Your task to perform on an android device: turn on priority inbox in the gmail app Image 0: 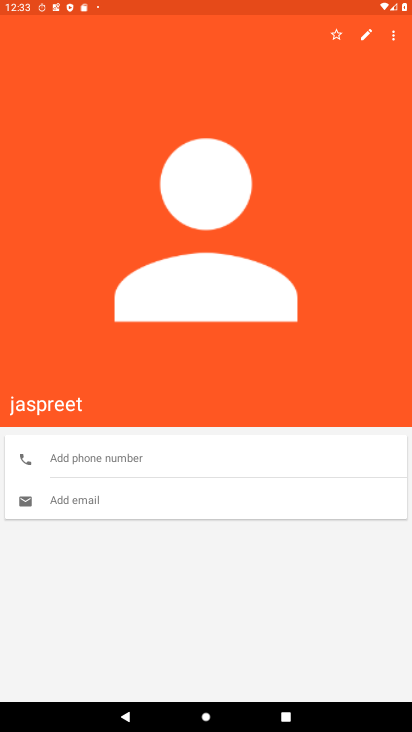
Step 0: press home button
Your task to perform on an android device: turn on priority inbox in the gmail app Image 1: 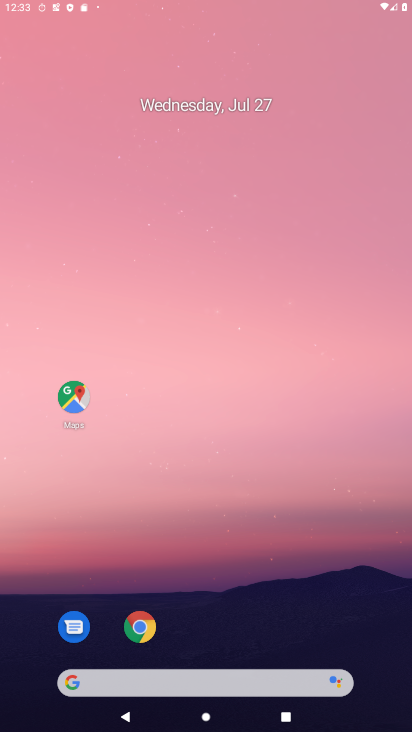
Step 1: drag from (371, 632) to (122, 0)
Your task to perform on an android device: turn on priority inbox in the gmail app Image 2: 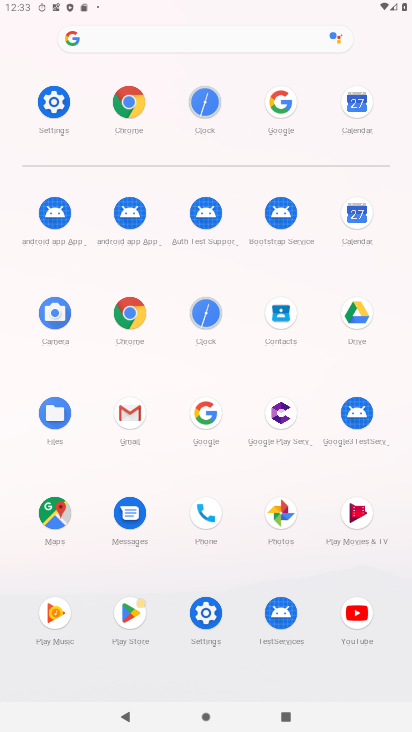
Step 2: click (129, 417)
Your task to perform on an android device: turn on priority inbox in the gmail app Image 3: 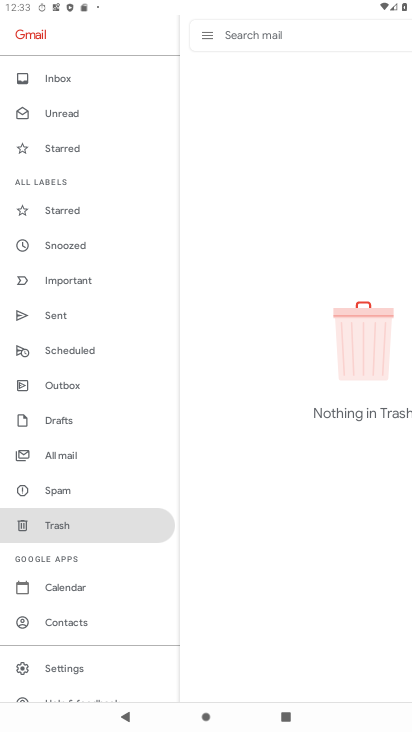
Step 3: click (80, 664)
Your task to perform on an android device: turn on priority inbox in the gmail app Image 4: 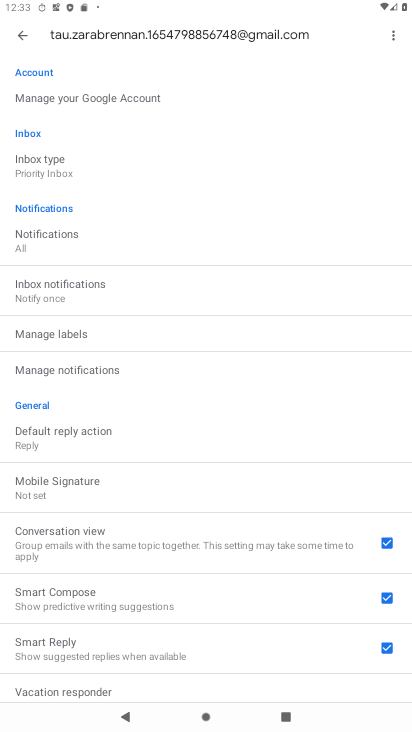
Step 4: click (33, 165)
Your task to perform on an android device: turn on priority inbox in the gmail app Image 5: 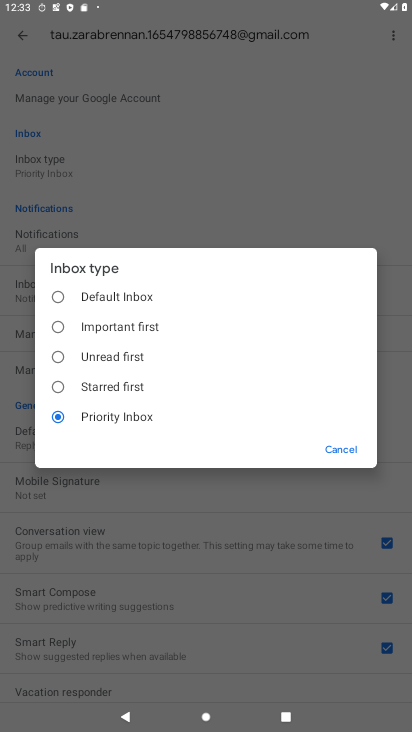
Step 5: task complete